Your task to perform on an android device: allow notifications from all sites in the chrome app Image 0: 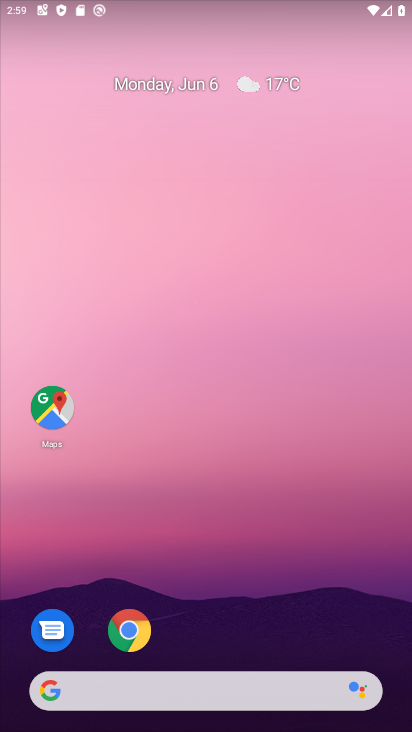
Step 0: click (129, 651)
Your task to perform on an android device: allow notifications from all sites in the chrome app Image 1: 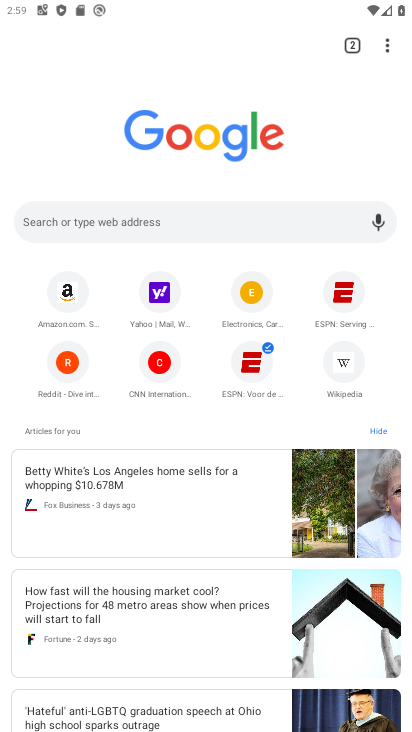
Step 1: drag from (385, 51) to (220, 384)
Your task to perform on an android device: allow notifications from all sites in the chrome app Image 2: 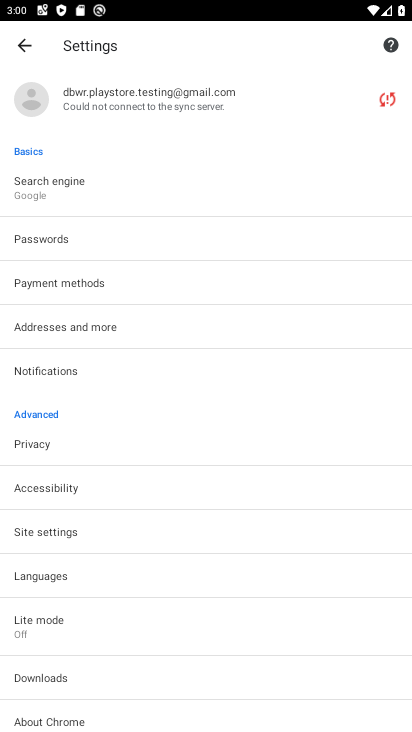
Step 2: click (67, 373)
Your task to perform on an android device: allow notifications from all sites in the chrome app Image 3: 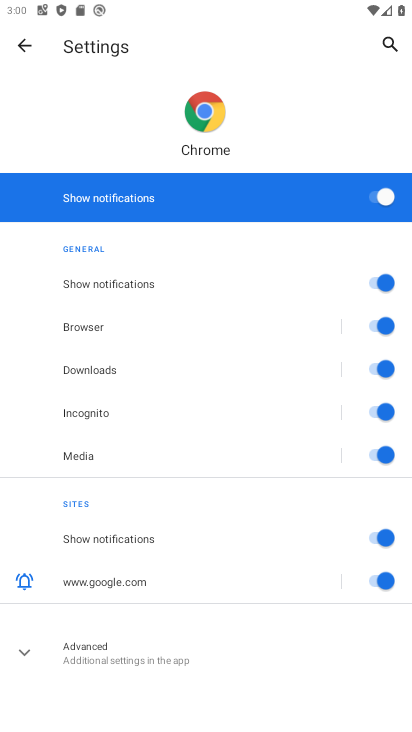
Step 3: click (383, 199)
Your task to perform on an android device: allow notifications from all sites in the chrome app Image 4: 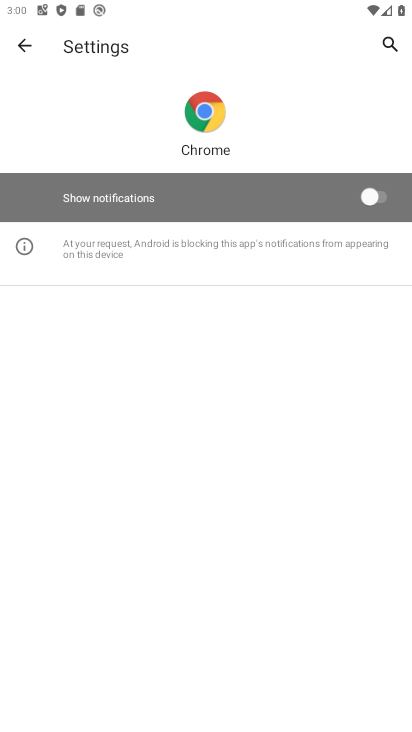
Step 4: click (370, 197)
Your task to perform on an android device: allow notifications from all sites in the chrome app Image 5: 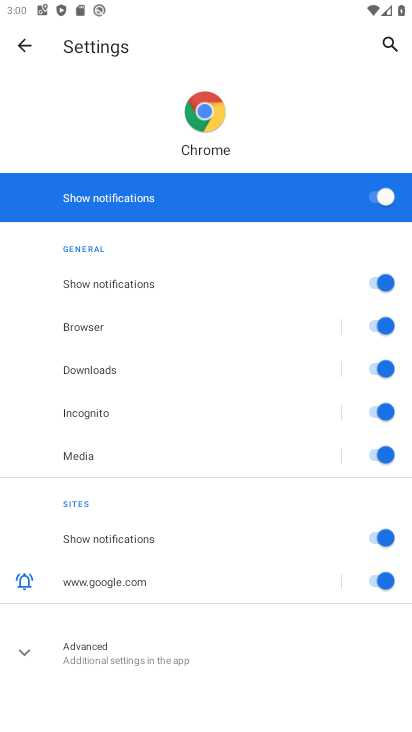
Step 5: task complete